Your task to perform on an android device: turn off sleep mode Image 0: 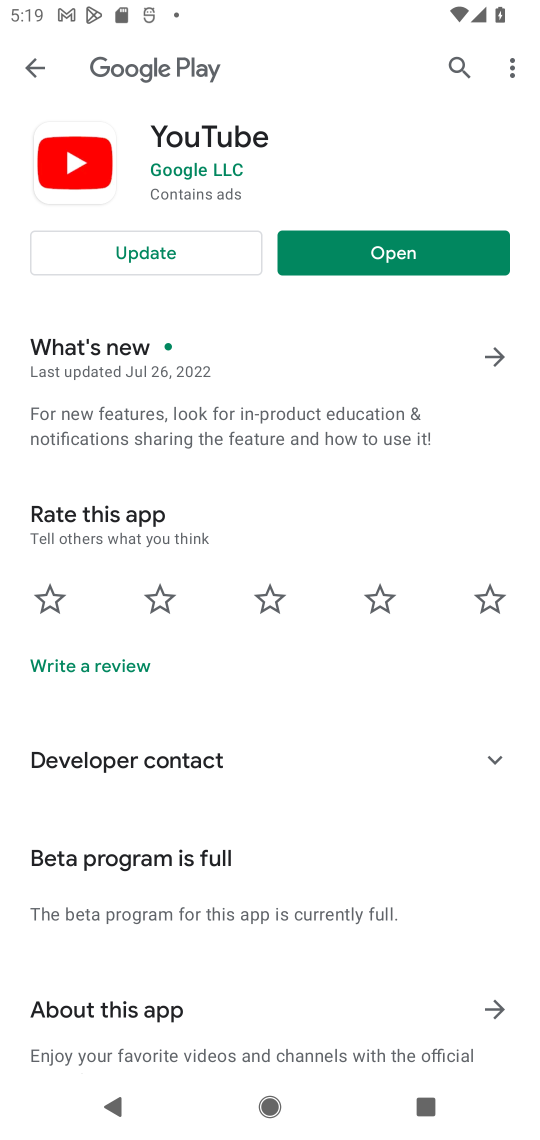
Step 0: press home button
Your task to perform on an android device: turn off sleep mode Image 1: 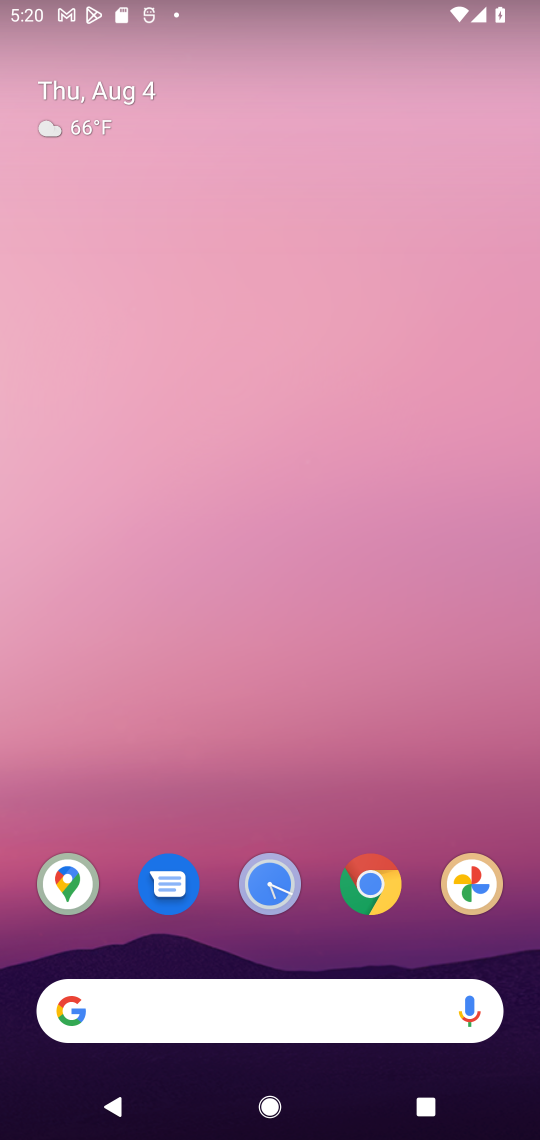
Step 1: drag from (216, 950) to (227, 139)
Your task to perform on an android device: turn off sleep mode Image 2: 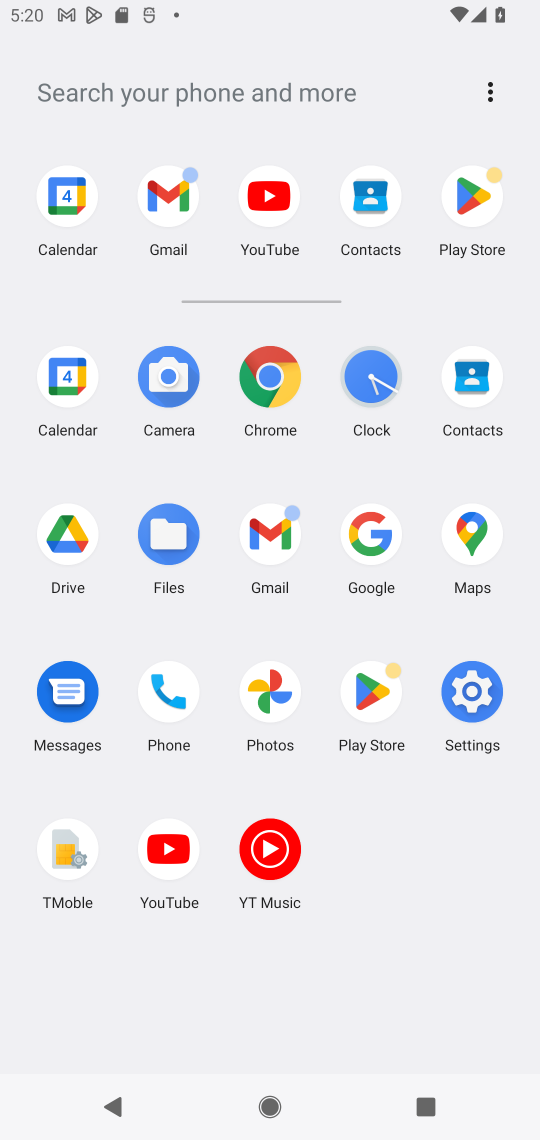
Step 2: click (381, 381)
Your task to perform on an android device: turn off sleep mode Image 3: 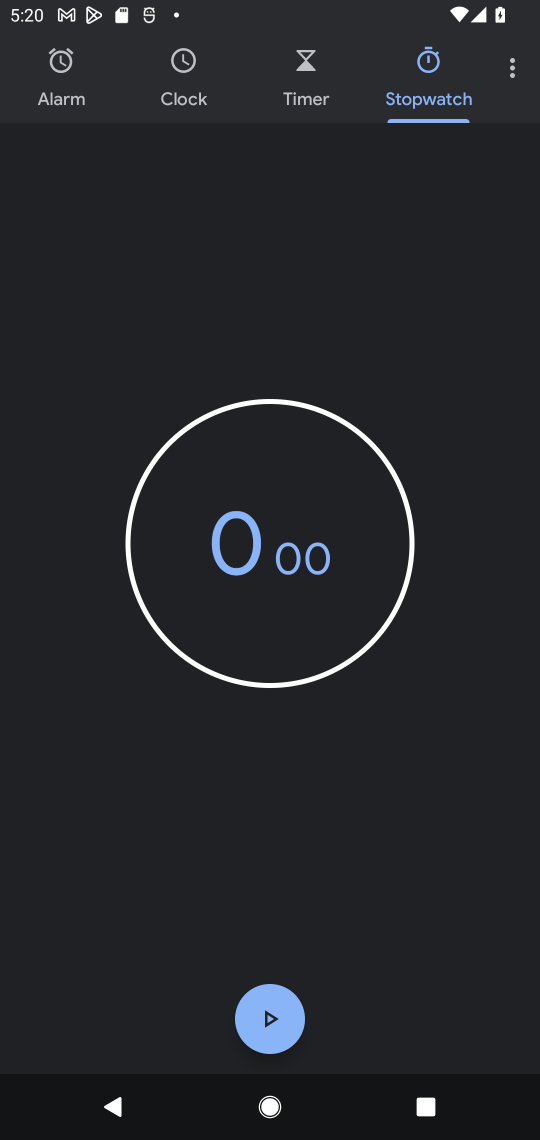
Step 3: click (520, 54)
Your task to perform on an android device: turn off sleep mode Image 4: 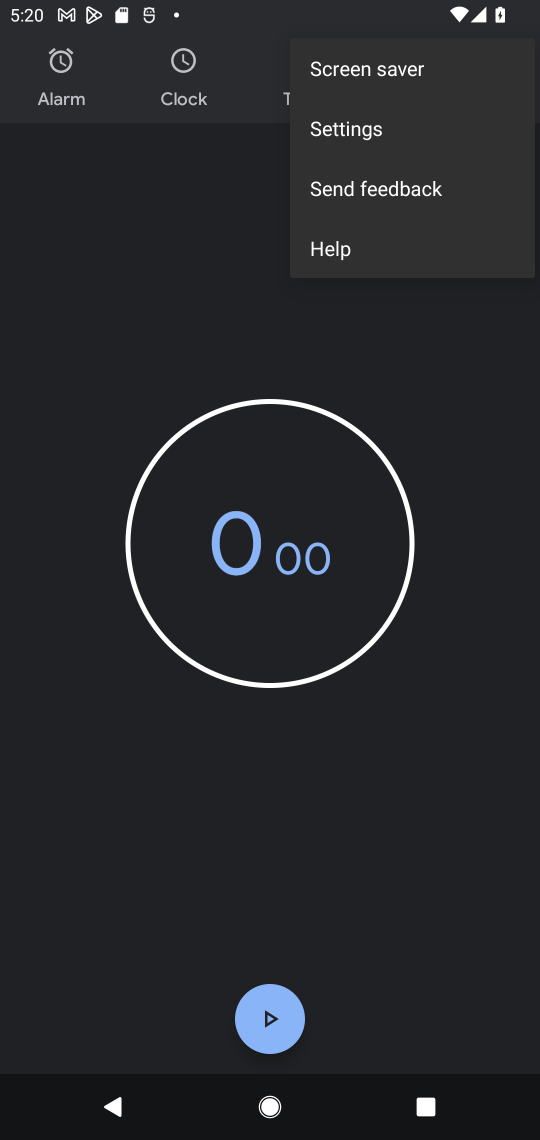
Step 4: click (371, 139)
Your task to perform on an android device: turn off sleep mode Image 5: 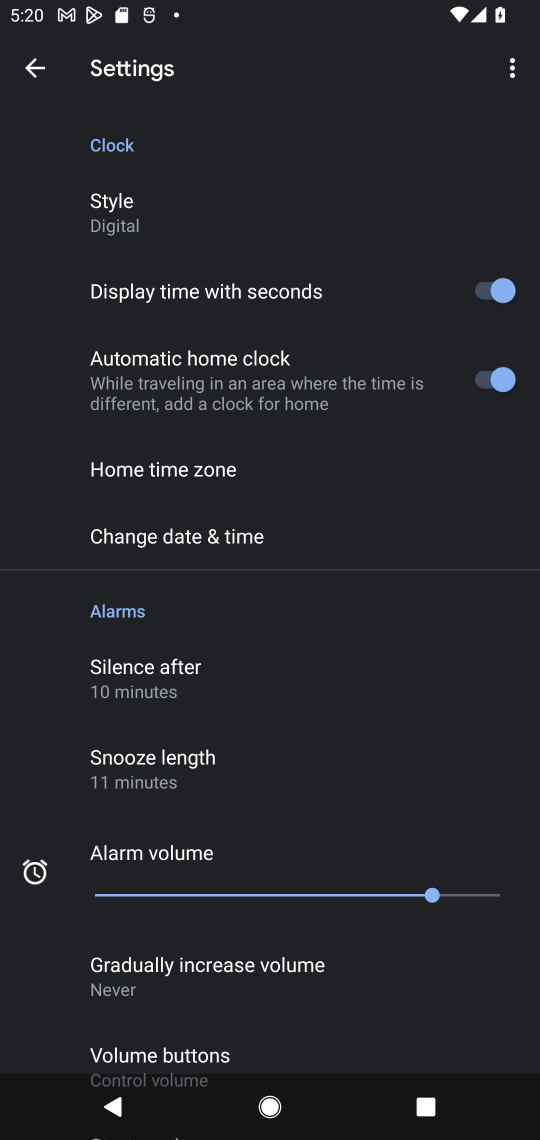
Step 5: task complete